Your task to perform on an android device: Go to ESPN.com Image 0: 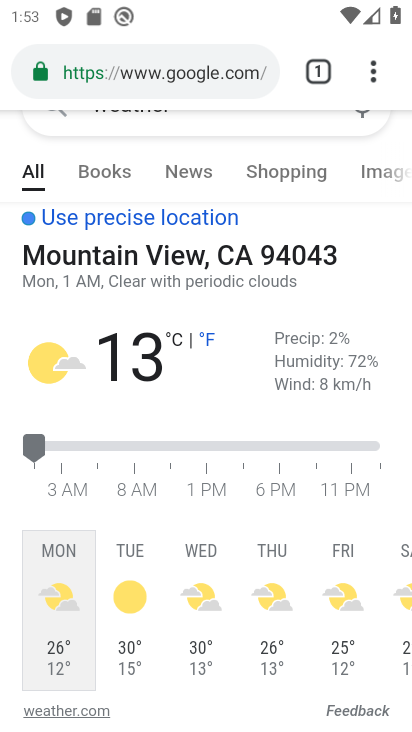
Step 0: click (231, 64)
Your task to perform on an android device: Go to ESPN.com Image 1: 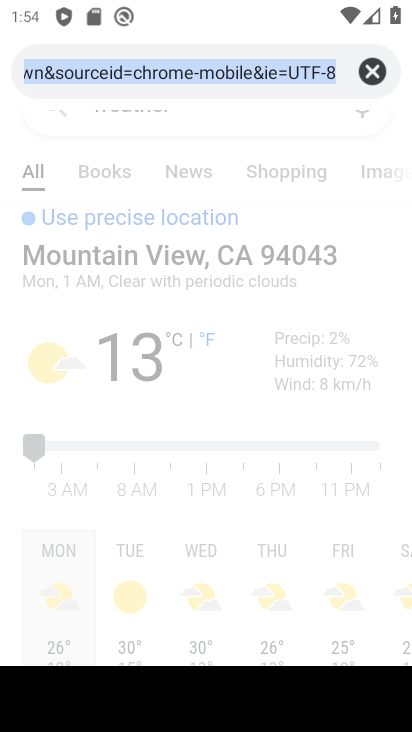
Step 1: type "espn.com"
Your task to perform on an android device: Go to ESPN.com Image 2: 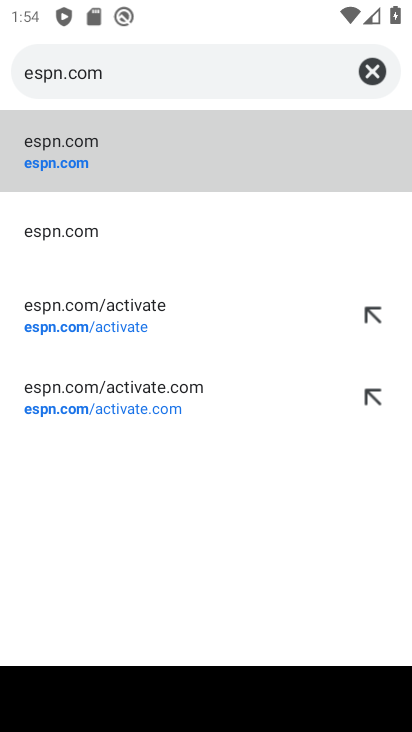
Step 2: click (66, 159)
Your task to perform on an android device: Go to ESPN.com Image 3: 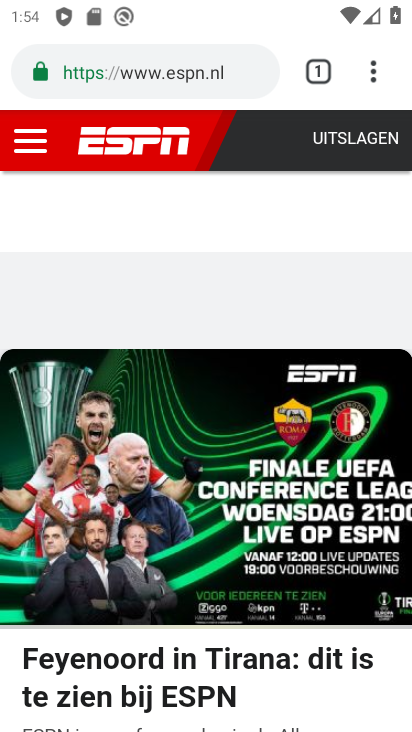
Step 3: task complete